Your task to perform on an android device: set an alarm Image 0: 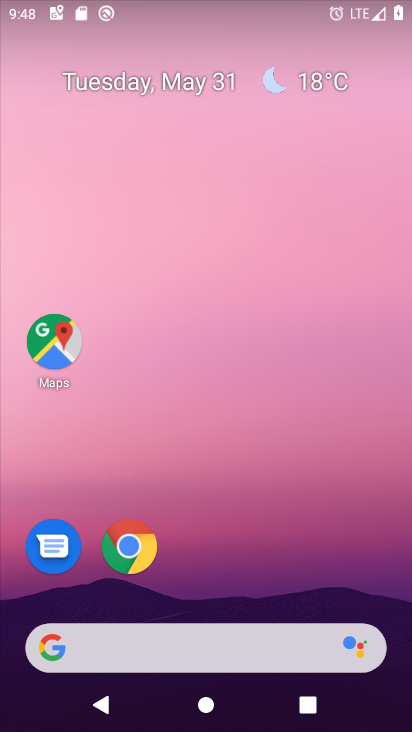
Step 0: drag from (211, 565) to (293, 1)
Your task to perform on an android device: set an alarm Image 1: 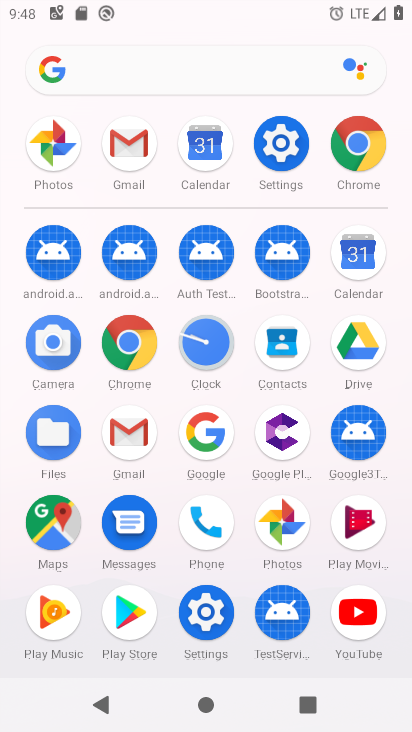
Step 1: click (224, 342)
Your task to perform on an android device: set an alarm Image 2: 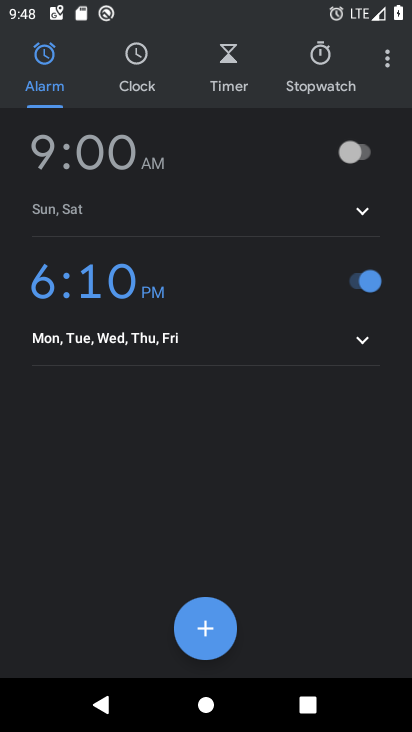
Step 2: click (357, 154)
Your task to perform on an android device: set an alarm Image 3: 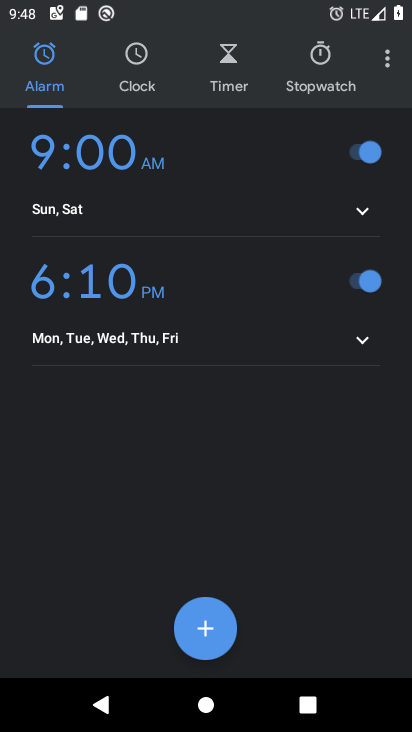
Step 3: task complete